Your task to perform on an android device: Do I have any events this weekend? Image 0: 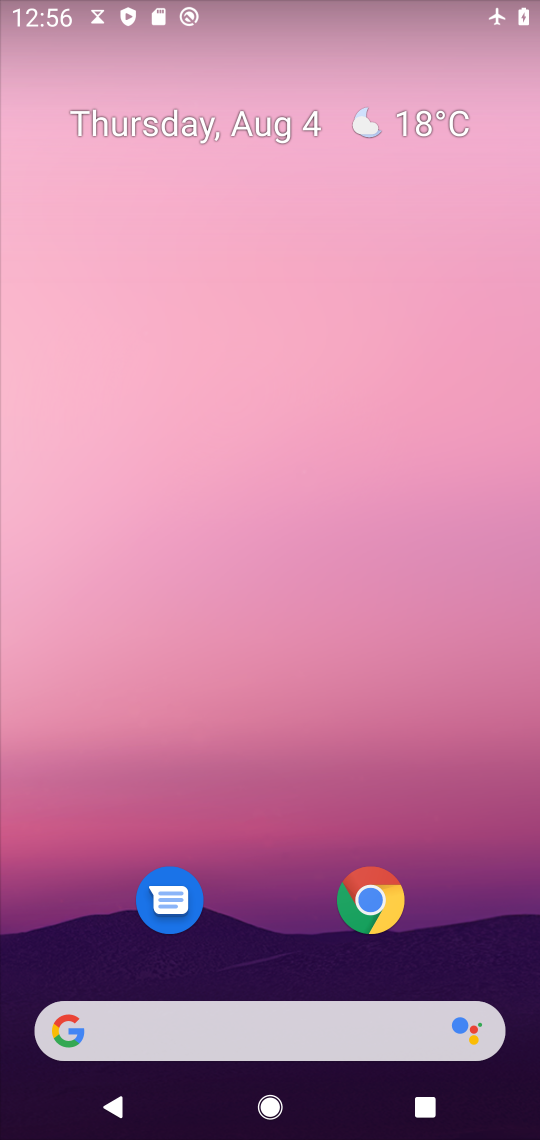
Step 0: press home button
Your task to perform on an android device: Do I have any events this weekend? Image 1: 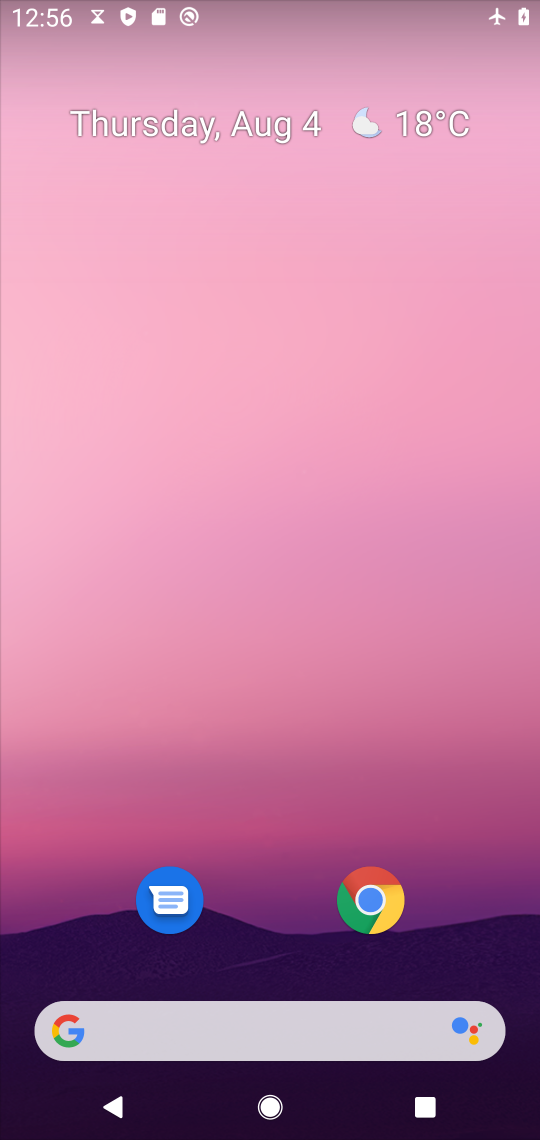
Step 1: drag from (270, 975) to (27, 129)
Your task to perform on an android device: Do I have any events this weekend? Image 2: 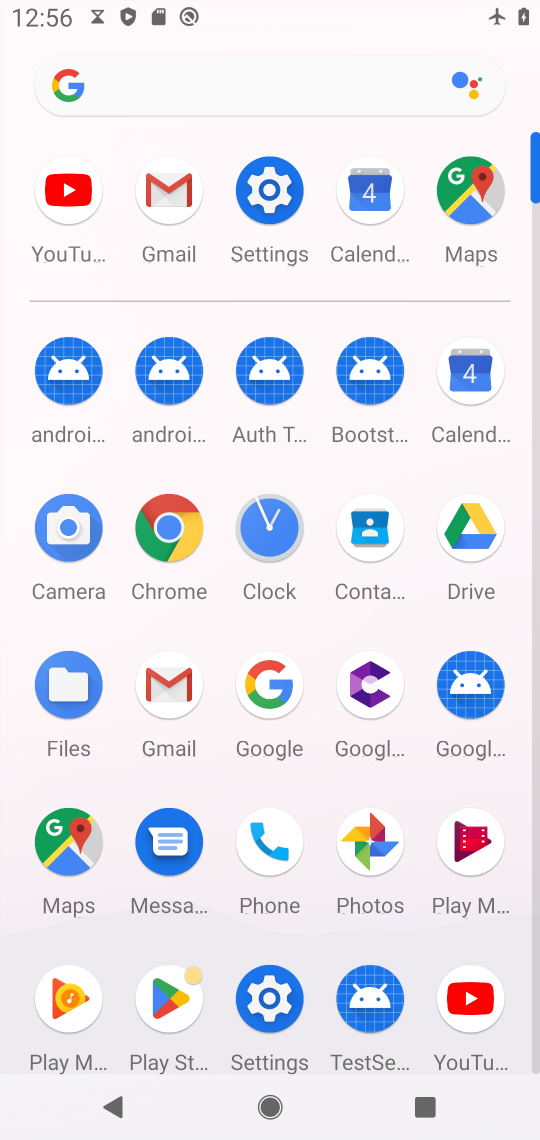
Step 2: click (481, 375)
Your task to perform on an android device: Do I have any events this weekend? Image 3: 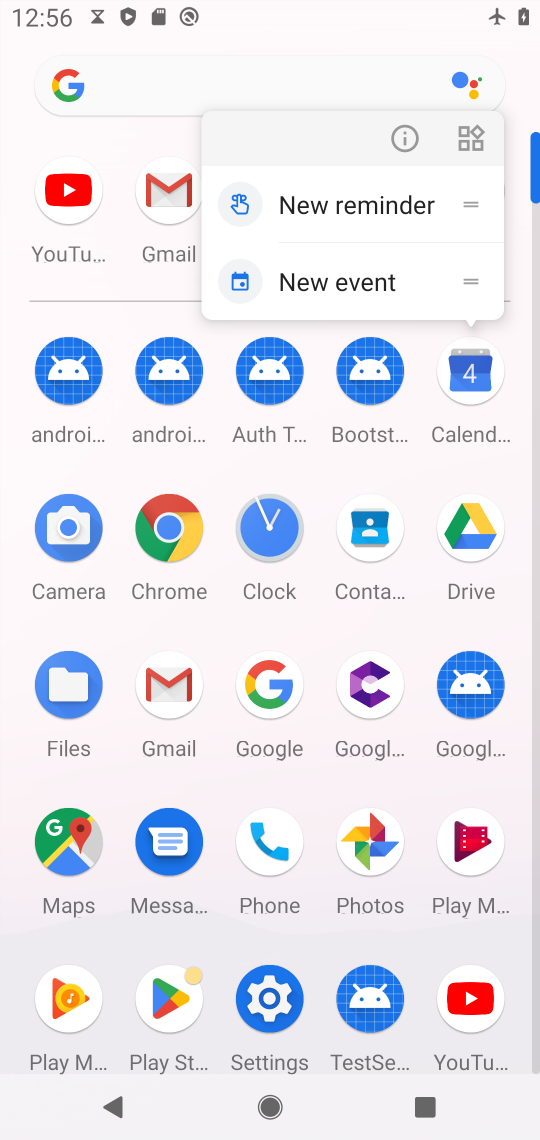
Step 3: click (481, 375)
Your task to perform on an android device: Do I have any events this weekend? Image 4: 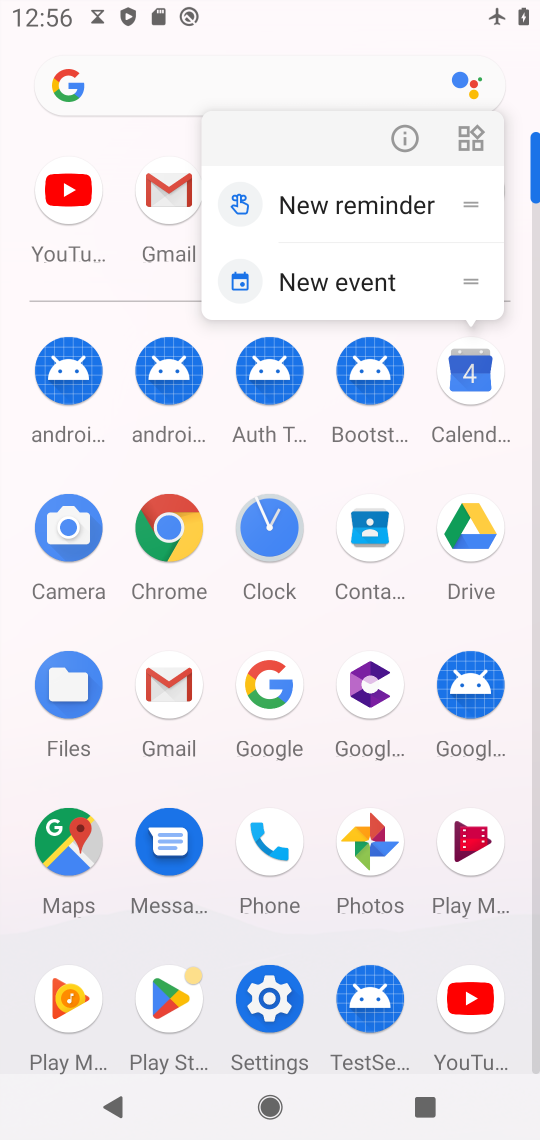
Step 4: click (462, 392)
Your task to perform on an android device: Do I have any events this weekend? Image 5: 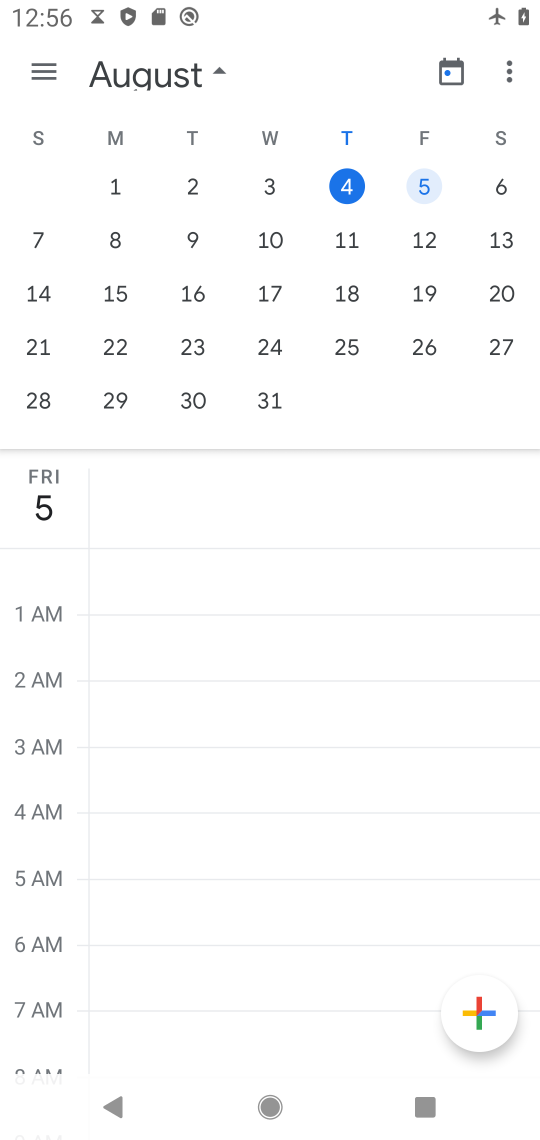
Step 5: click (34, 54)
Your task to perform on an android device: Do I have any events this weekend? Image 6: 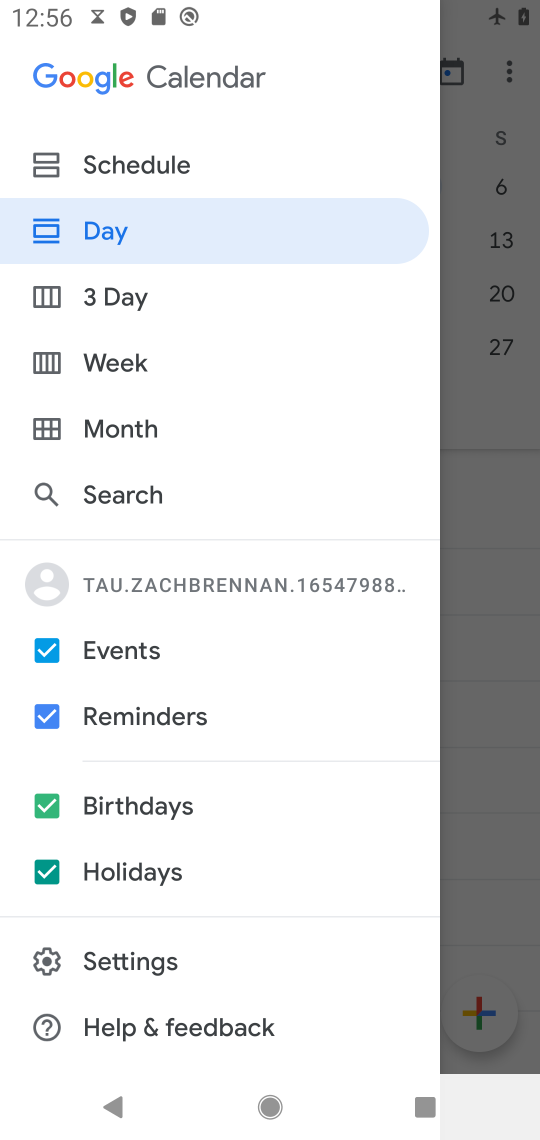
Step 6: click (129, 363)
Your task to perform on an android device: Do I have any events this weekend? Image 7: 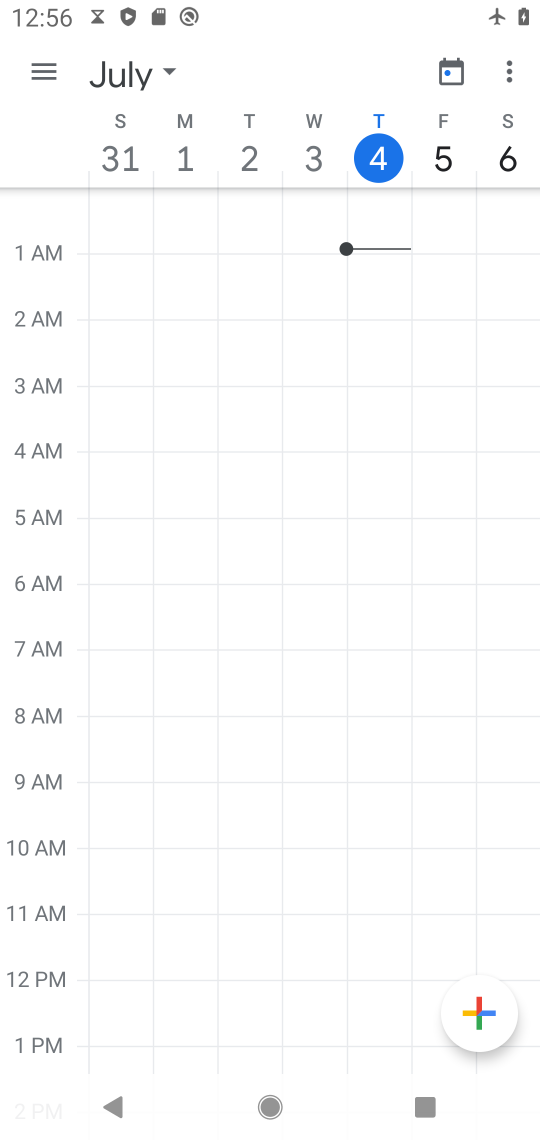
Step 7: task complete